Your task to perform on an android device: open wifi settings Image 0: 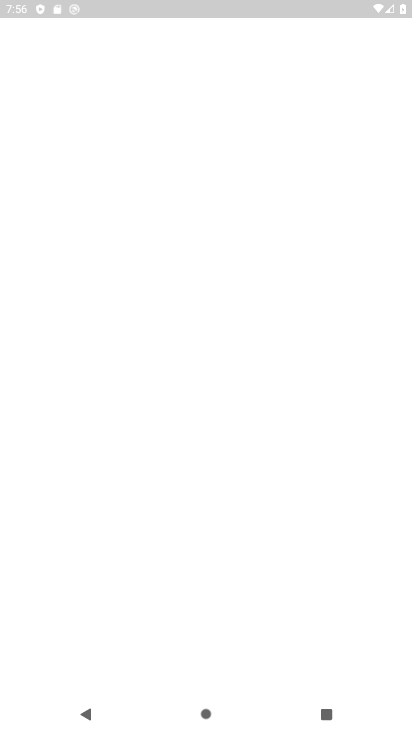
Step 0: drag from (223, 642) to (383, 5)
Your task to perform on an android device: open wifi settings Image 1: 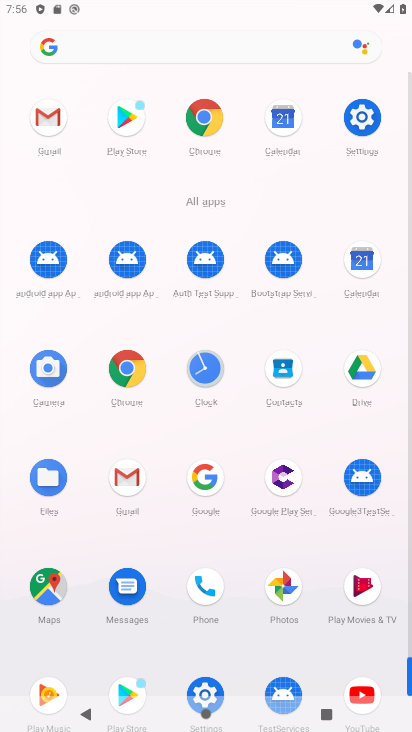
Step 1: click (361, 111)
Your task to perform on an android device: open wifi settings Image 2: 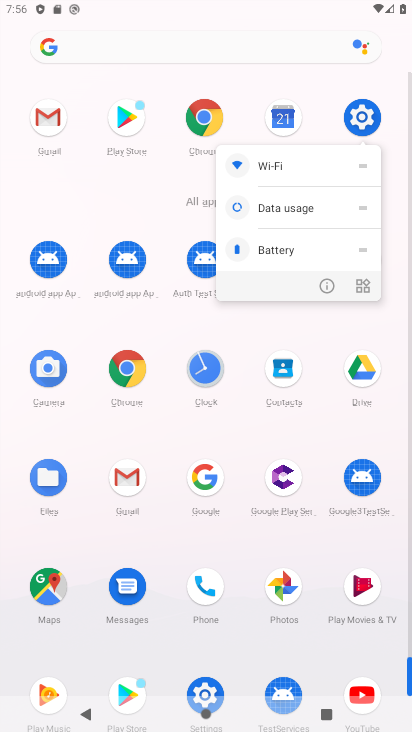
Step 2: click (361, 111)
Your task to perform on an android device: open wifi settings Image 3: 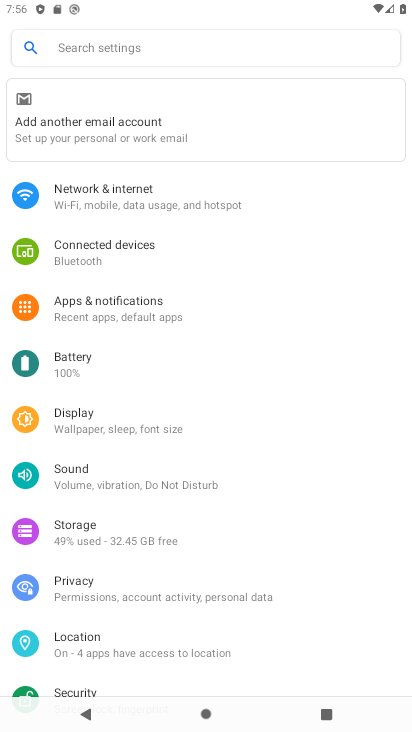
Step 3: click (113, 198)
Your task to perform on an android device: open wifi settings Image 4: 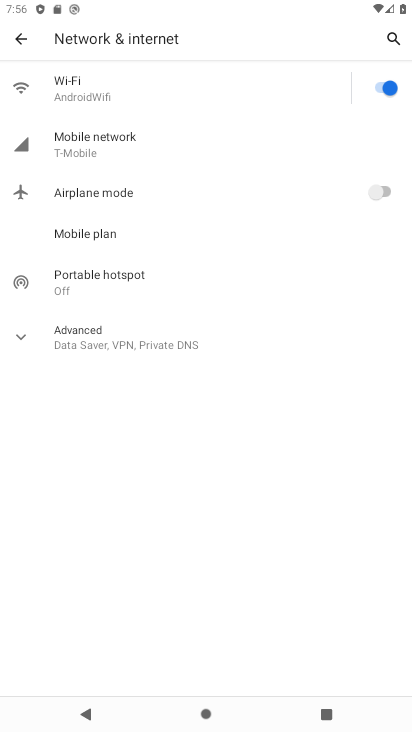
Step 4: click (120, 96)
Your task to perform on an android device: open wifi settings Image 5: 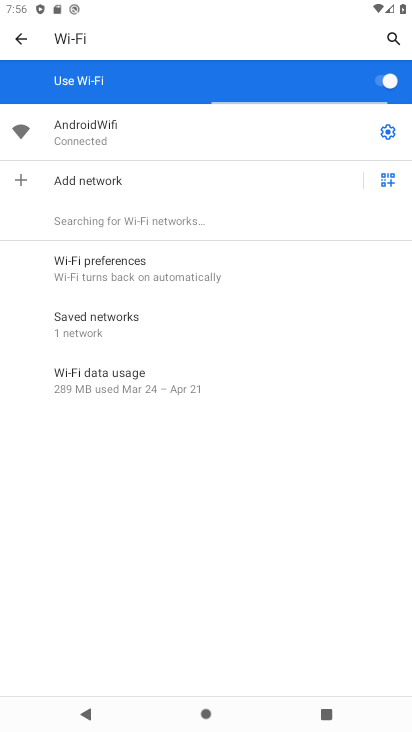
Step 5: task complete